Your task to perform on an android device: toggle airplane mode Image 0: 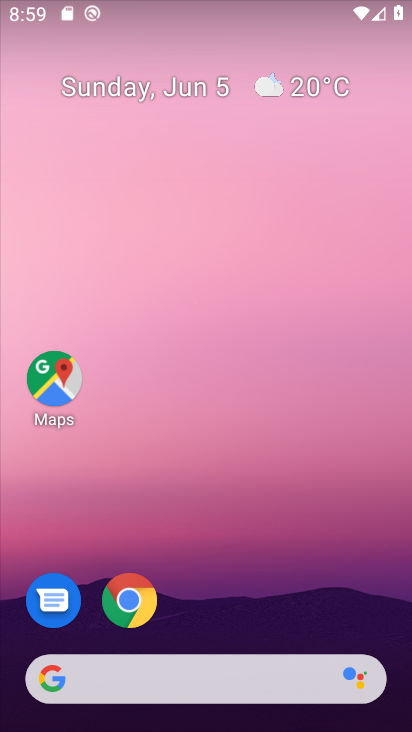
Step 0: drag from (261, 547) to (297, 8)
Your task to perform on an android device: toggle airplane mode Image 1: 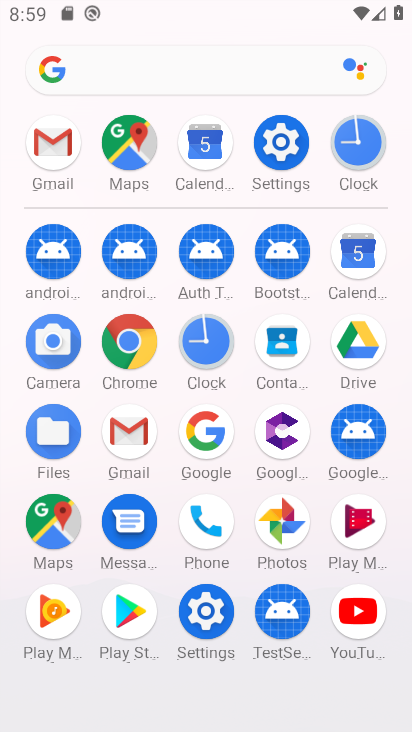
Step 1: click (288, 131)
Your task to perform on an android device: toggle airplane mode Image 2: 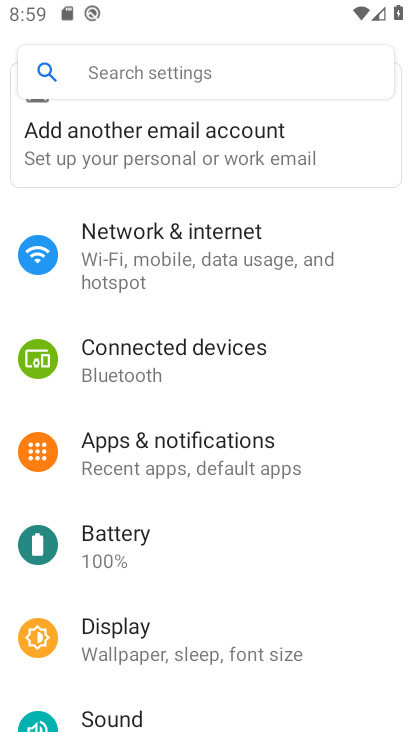
Step 2: click (247, 237)
Your task to perform on an android device: toggle airplane mode Image 3: 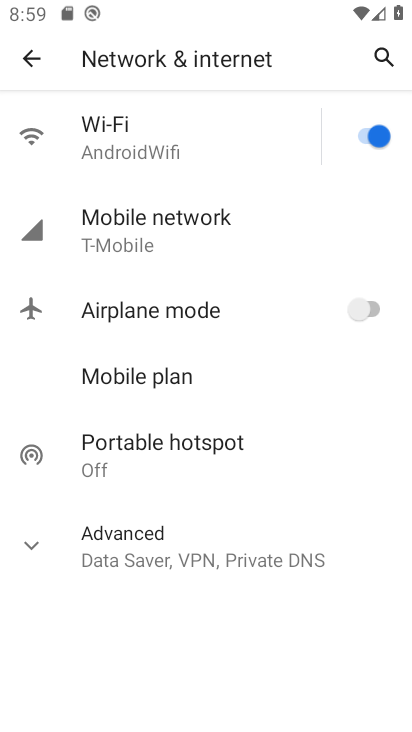
Step 3: click (367, 308)
Your task to perform on an android device: toggle airplane mode Image 4: 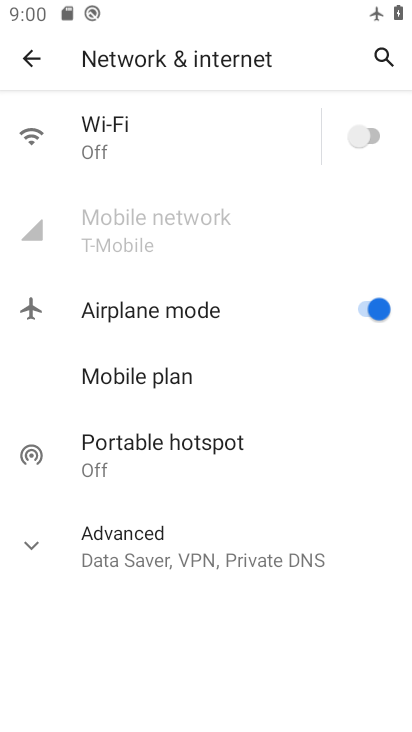
Step 4: task complete